Your task to perform on an android device: Open the stopwatch Image 0: 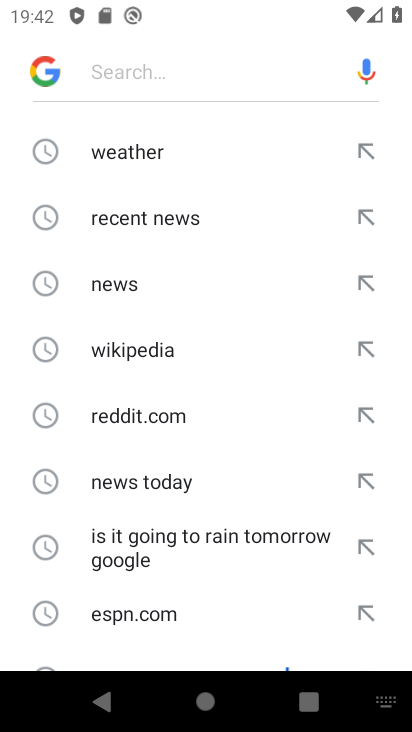
Step 0: press home button
Your task to perform on an android device: Open the stopwatch Image 1: 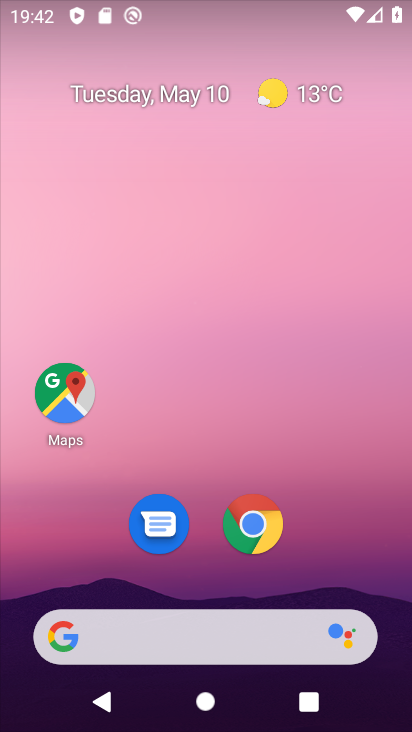
Step 1: drag from (317, 526) to (360, 36)
Your task to perform on an android device: Open the stopwatch Image 2: 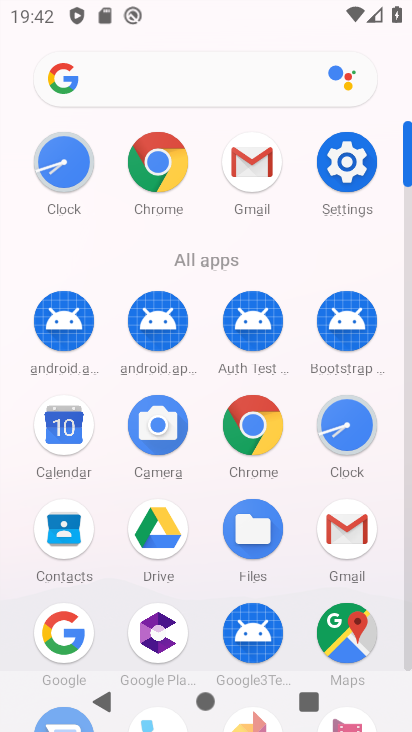
Step 2: click (350, 425)
Your task to perform on an android device: Open the stopwatch Image 3: 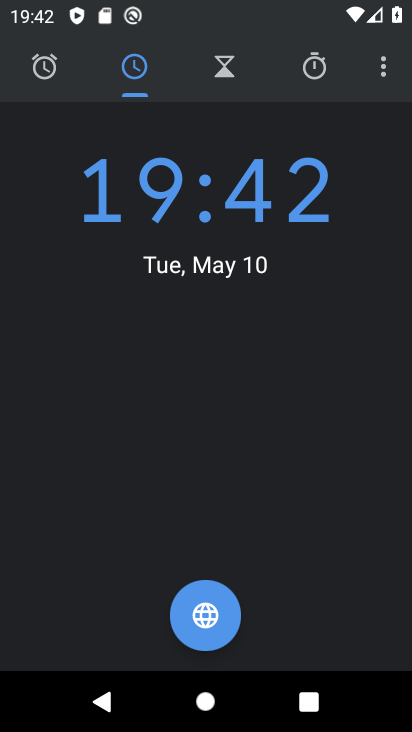
Step 3: click (321, 66)
Your task to perform on an android device: Open the stopwatch Image 4: 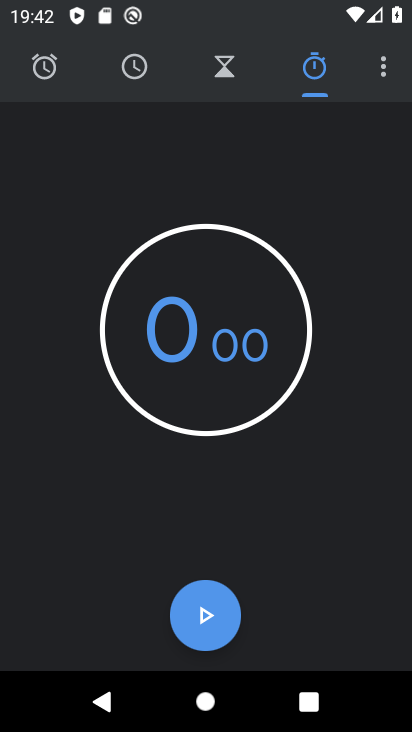
Step 4: task complete